Your task to perform on an android device: Open internet settings Image 0: 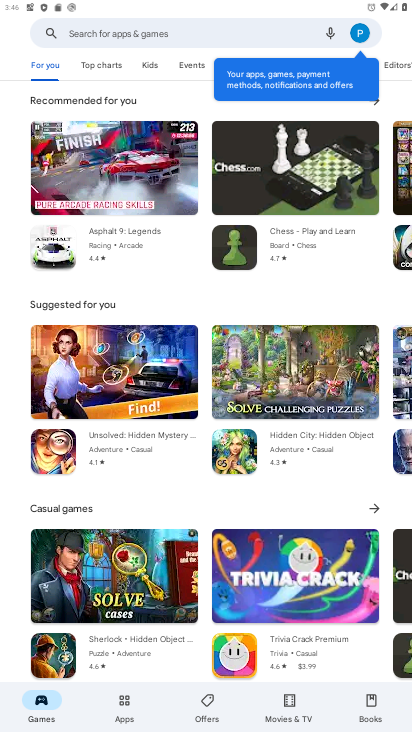
Step 0: press home button
Your task to perform on an android device: Open internet settings Image 1: 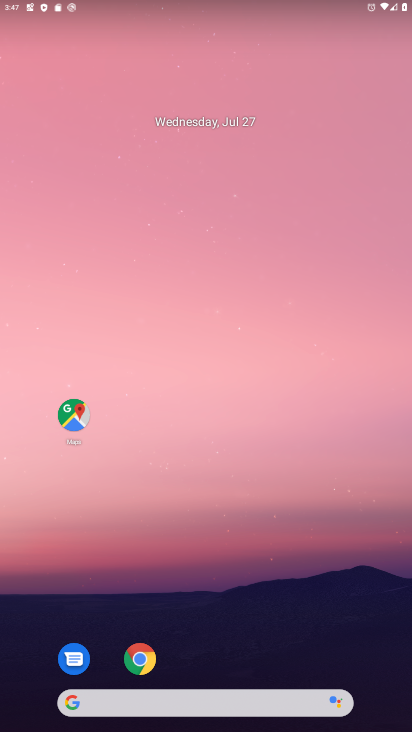
Step 1: drag from (238, 647) to (195, 97)
Your task to perform on an android device: Open internet settings Image 2: 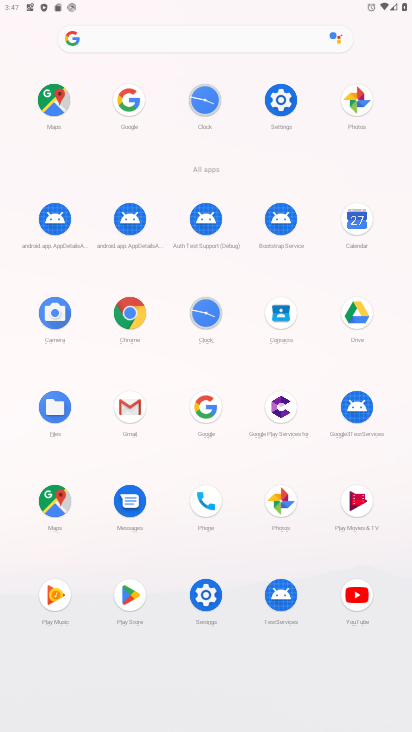
Step 2: click (272, 95)
Your task to perform on an android device: Open internet settings Image 3: 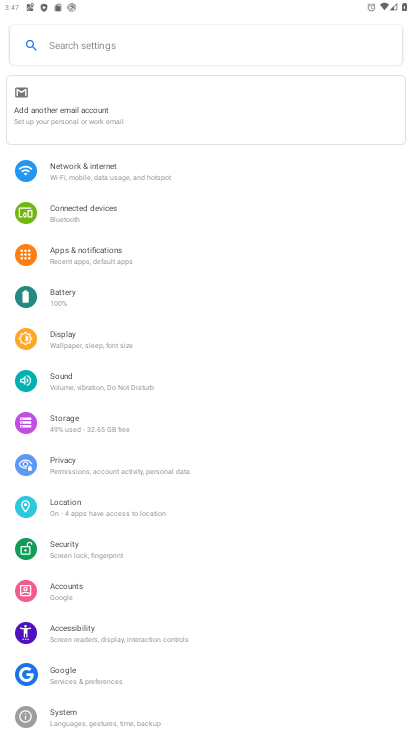
Step 3: click (98, 176)
Your task to perform on an android device: Open internet settings Image 4: 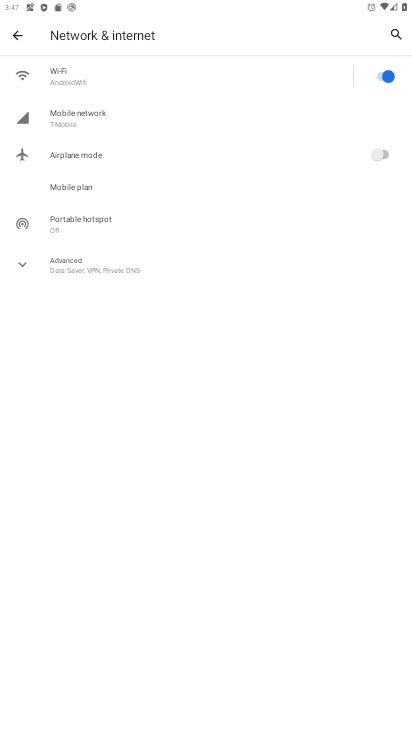
Step 4: click (92, 115)
Your task to perform on an android device: Open internet settings Image 5: 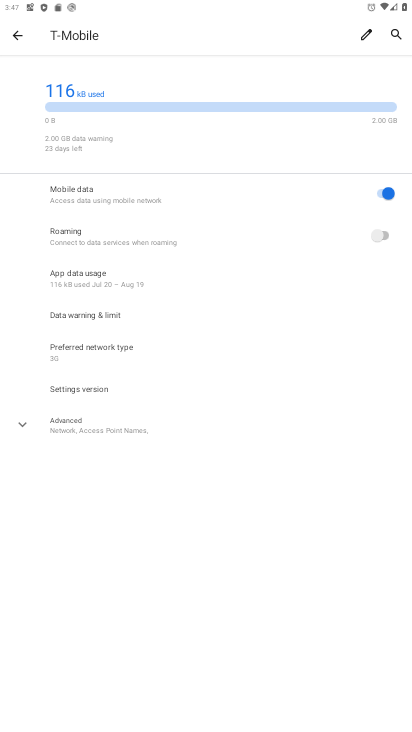
Step 5: task complete